Your task to perform on an android device: see tabs open on other devices in the chrome app Image 0: 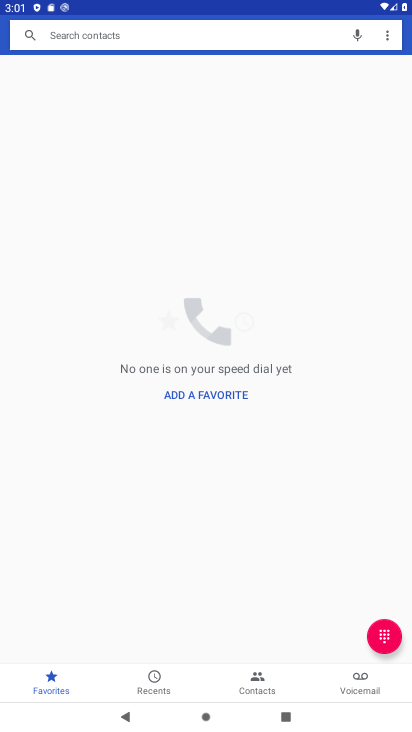
Step 0: press back button
Your task to perform on an android device: see tabs open on other devices in the chrome app Image 1: 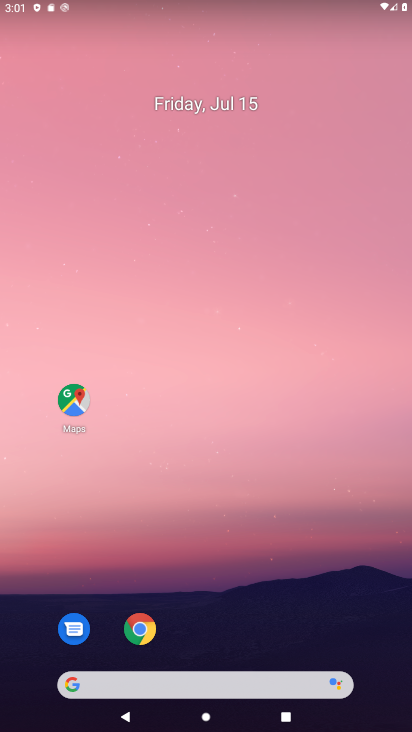
Step 1: drag from (273, 694) to (187, 49)
Your task to perform on an android device: see tabs open on other devices in the chrome app Image 2: 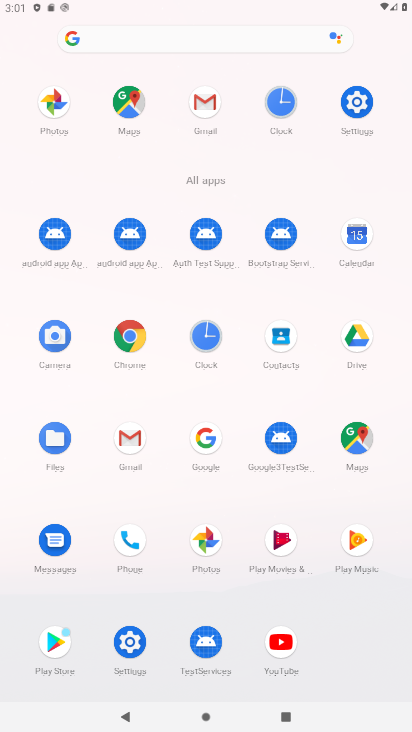
Step 2: click (125, 329)
Your task to perform on an android device: see tabs open on other devices in the chrome app Image 3: 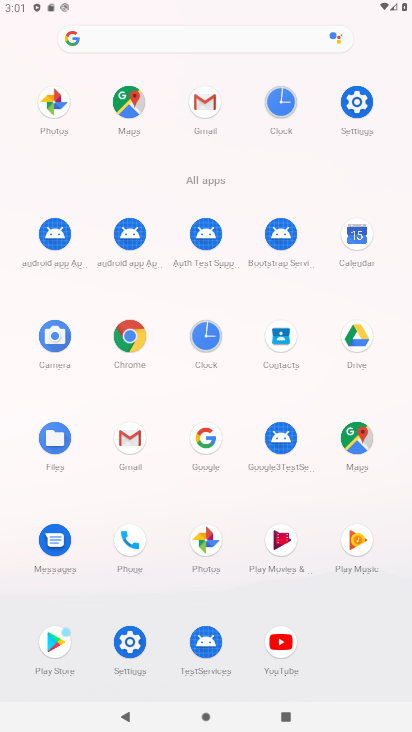
Step 3: click (133, 322)
Your task to perform on an android device: see tabs open on other devices in the chrome app Image 4: 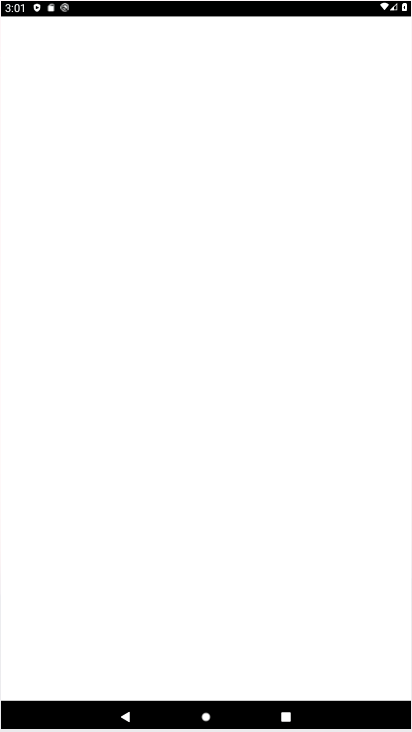
Step 4: click (138, 329)
Your task to perform on an android device: see tabs open on other devices in the chrome app Image 5: 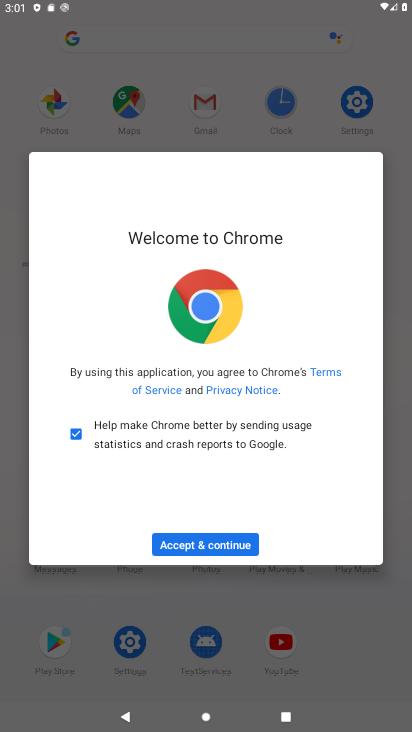
Step 5: click (214, 547)
Your task to perform on an android device: see tabs open on other devices in the chrome app Image 6: 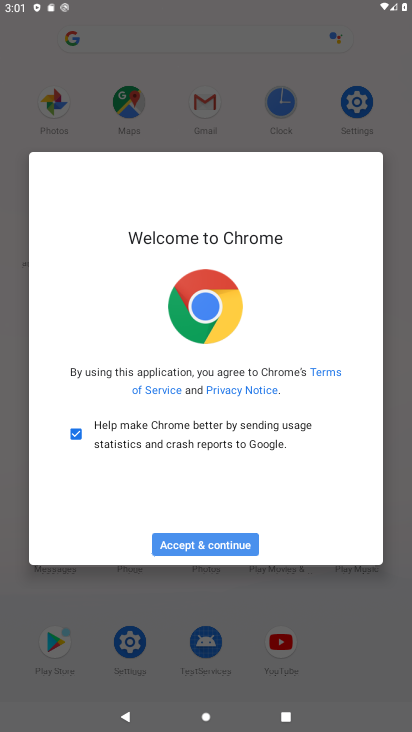
Step 6: click (213, 550)
Your task to perform on an android device: see tabs open on other devices in the chrome app Image 7: 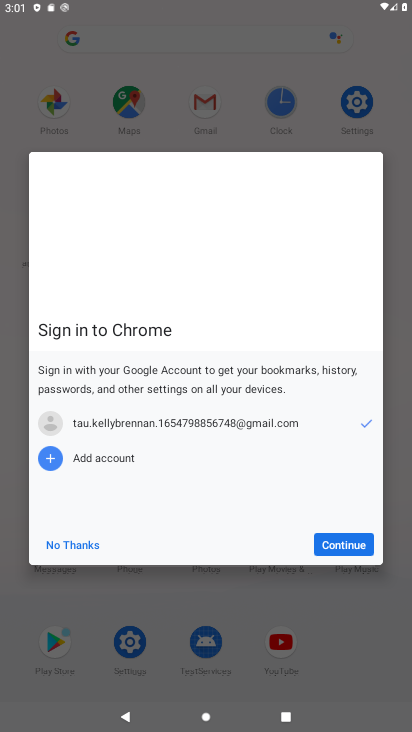
Step 7: click (214, 560)
Your task to perform on an android device: see tabs open on other devices in the chrome app Image 8: 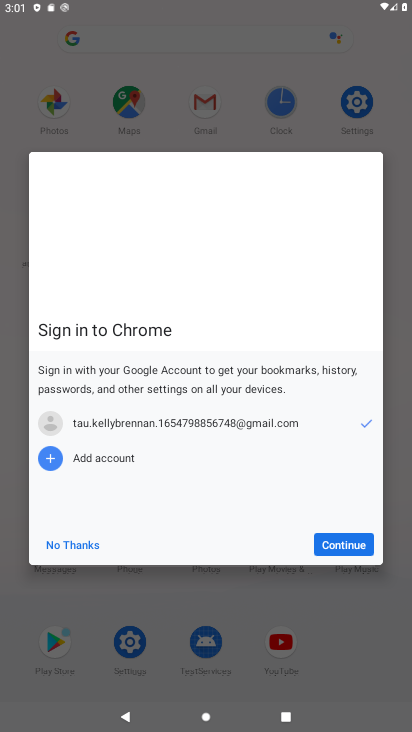
Step 8: click (217, 567)
Your task to perform on an android device: see tabs open on other devices in the chrome app Image 9: 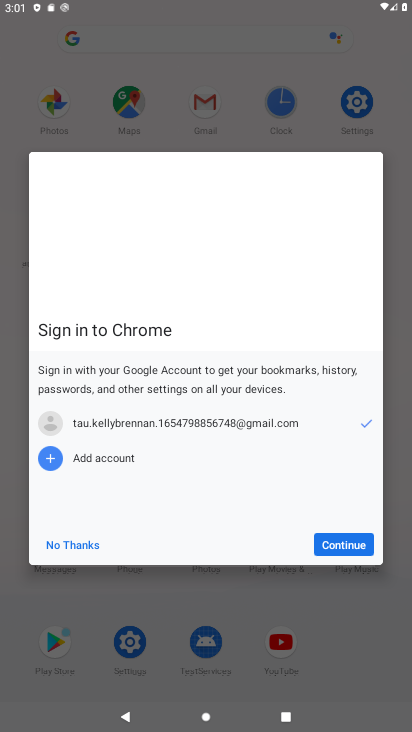
Step 9: click (345, 547)
Your task to perform on an android device: see tabs open on other devices in the chrome app Image 10: 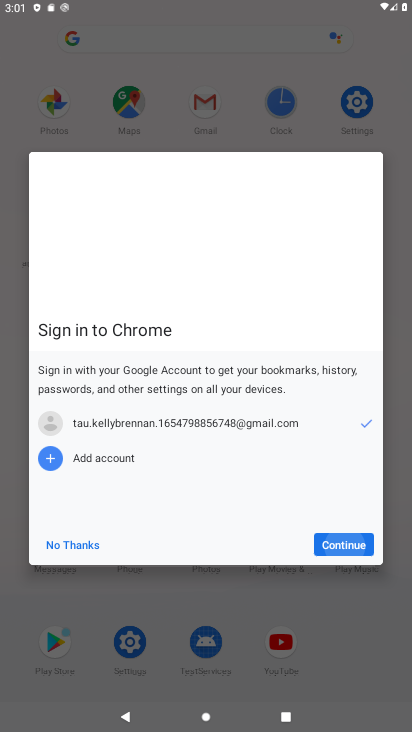
Step 10: click (351, 542)
Your task to perform on an android device: see tabs open on other devices in the chrome app Image 11: 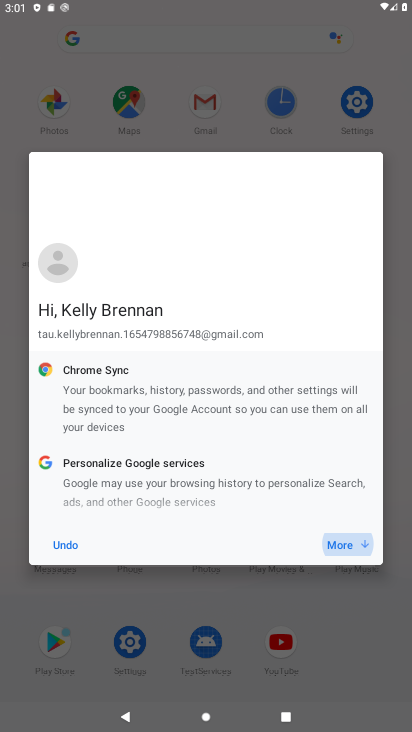
Step 11: click (354, 546)
Your task to perform on an android device: see tabs open on other devices in the chrome app Image 12: 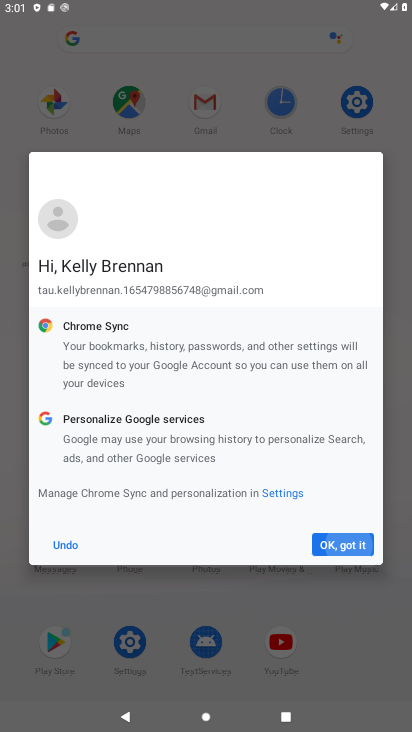
Step 12: click (353, 544)
Your task to perform on an android device: see tabs open on other devices in the chrome app Image 13: 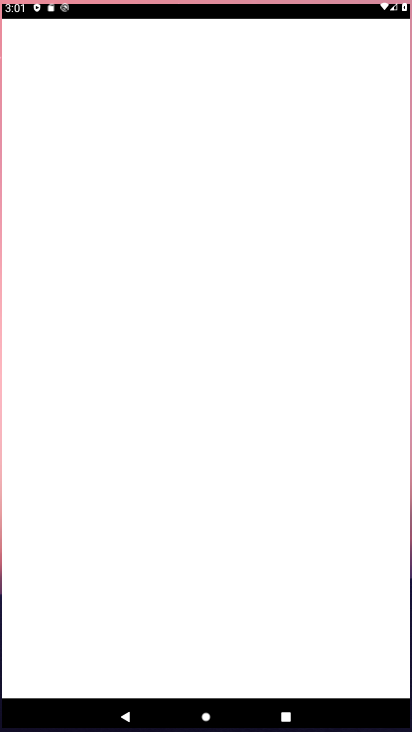
Step 13: click (352, 543)
Your task to perform on an android device: see tabs open on other devices in the chrome app Image 14: 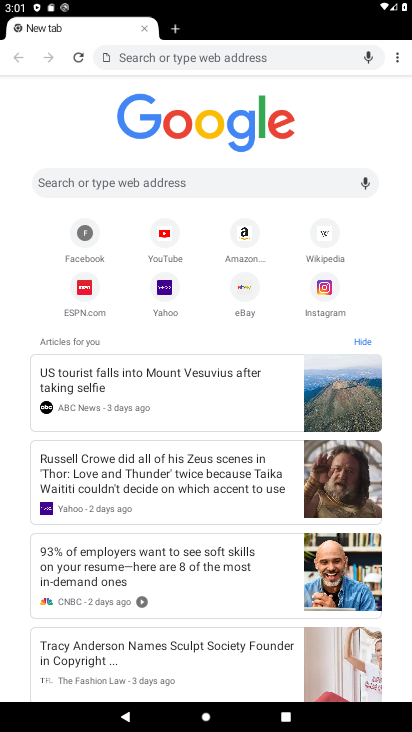
Step 14: drag from (394, 55) to (286, 147)
Your task to perform on an android device: see tabs open on other devices in the chrome app Image 15: 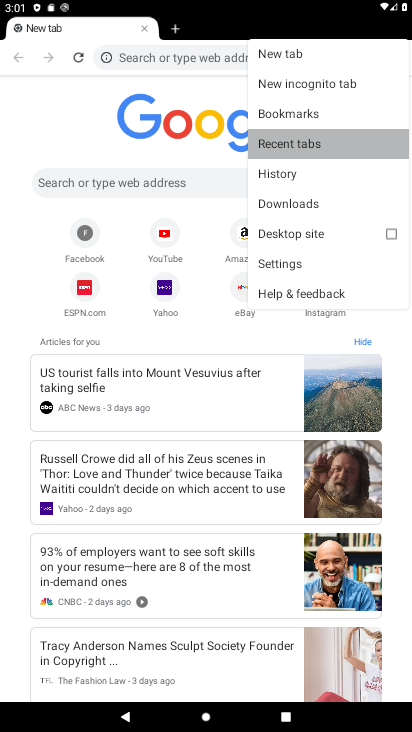
Step 15: click (286, 147)
Your task to perform on an android device: see tabs open on other devices in the chrome app Image 16: 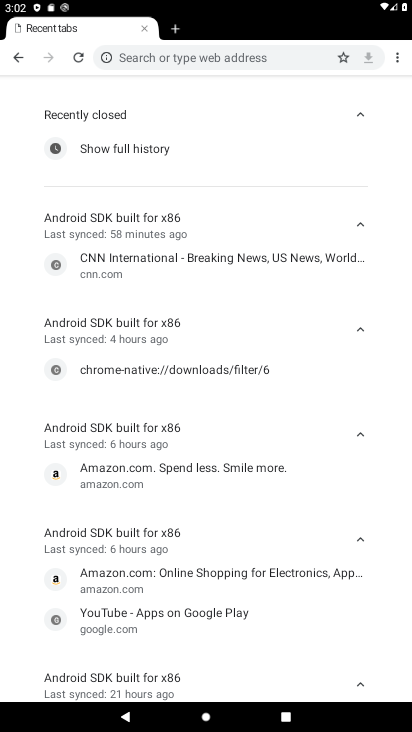
Step 16: task complete